Your task to perform on an android device: Go to Maps Image 0: 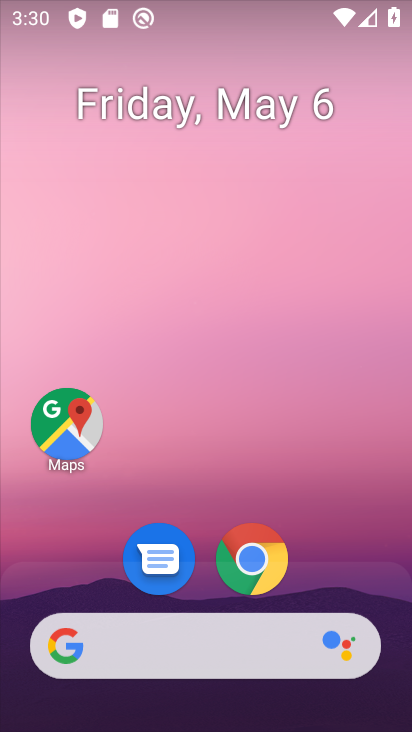
Step 0: click (49, 435)
Your task to perform on an android device: Go to Maps Image 1: 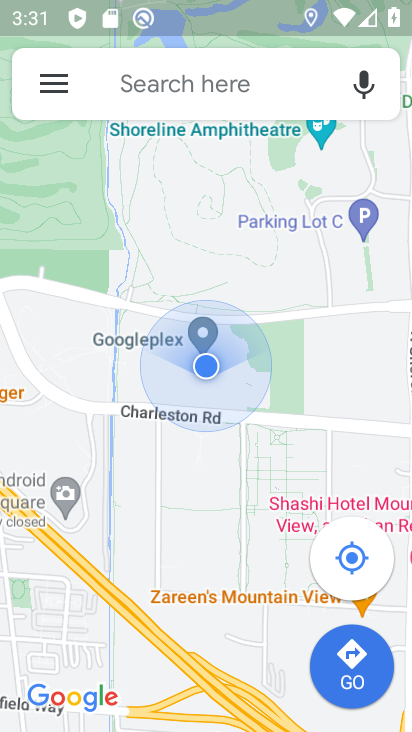
Step 1: task complete